Your task to perform on an android device: Go to notification settings Image 0: 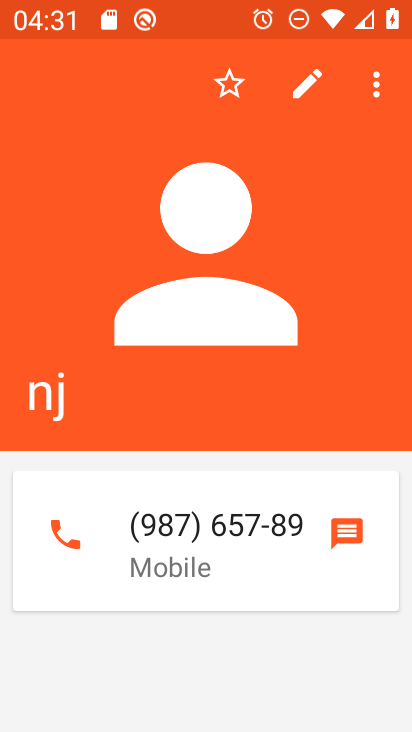
Step 0: press home button
Your task to perform on an android device: Go to notification settings Image 1: 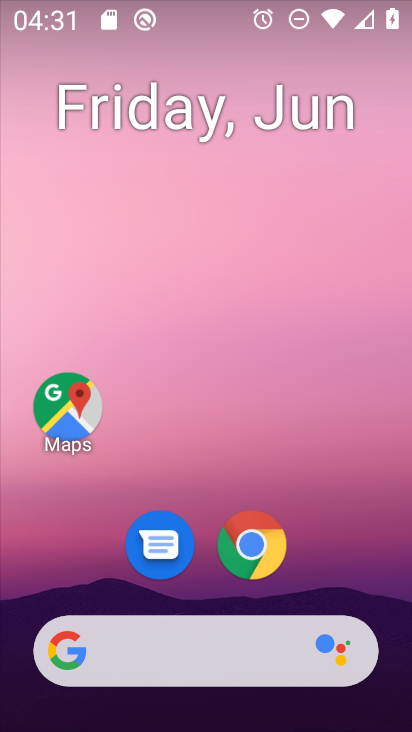
Step 1: drag from (346, 557) to (310, 0)
Your task to perform on an android device: Go to notification settings Image 2: 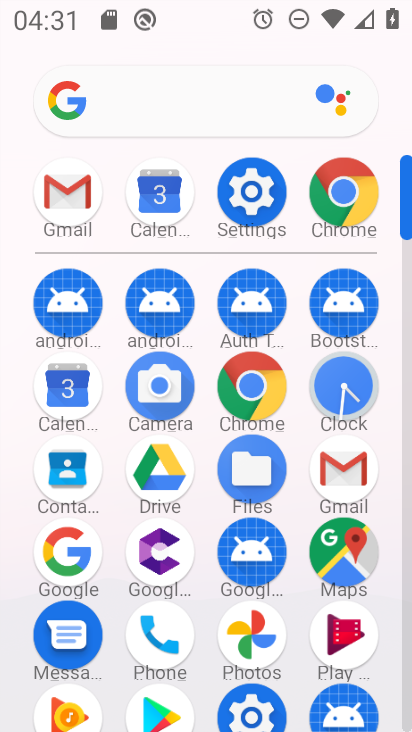
Step 2: click (241, 188)
Your task to perform on an android device: Go to notification settings Image 3: 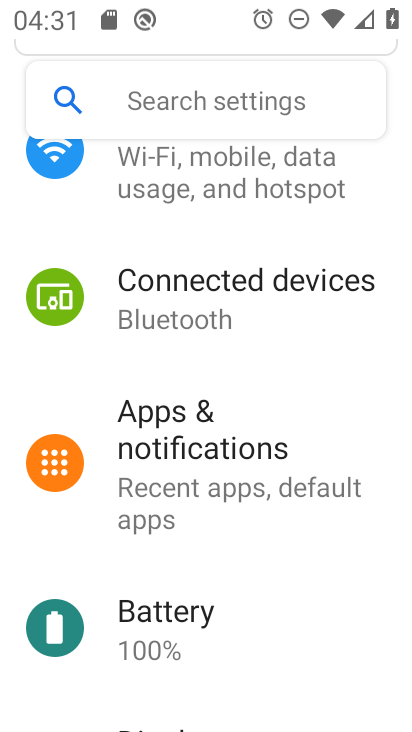
Step 3: click (184, 482)
Your task to perform on an android device: Go to notification settings Image 4: 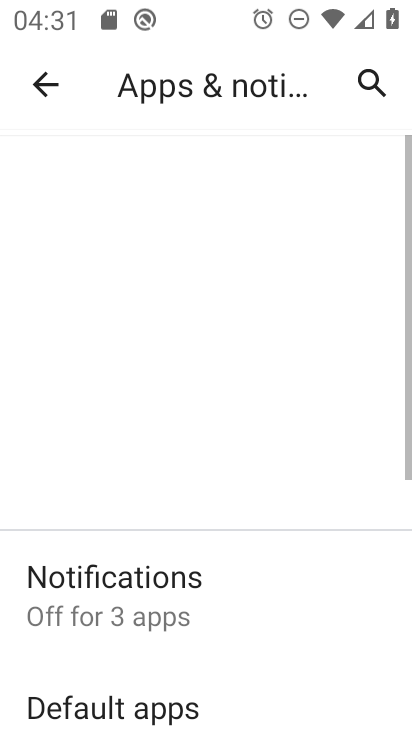
Step 4: click (184, 609)
Your task to perform on an android device: Go to notification settings Image 5: 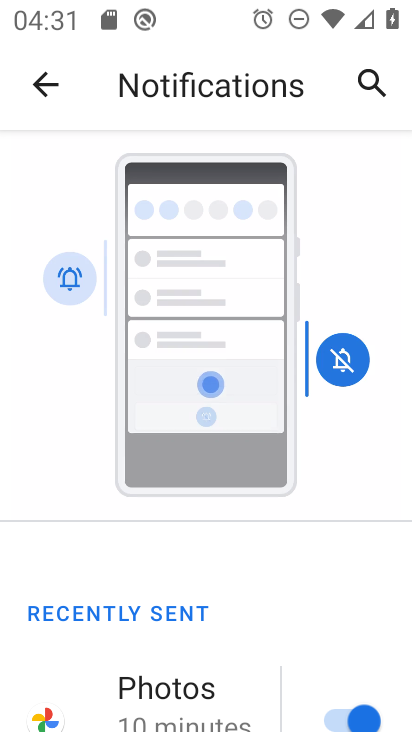
Step 5: task complete